Your task to perform on an android device: search for starred emails in the gmail app Image 0: 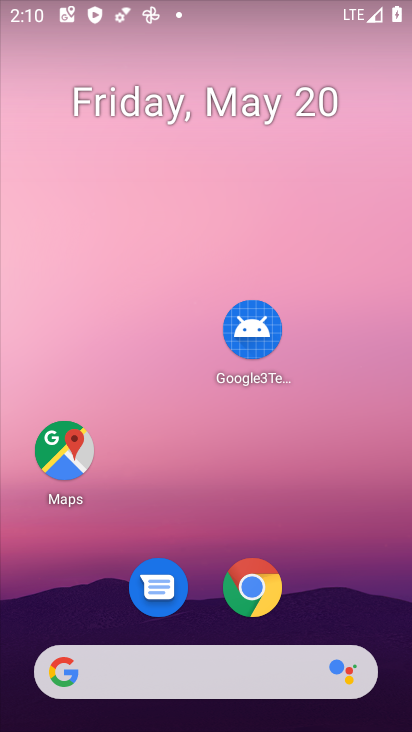
Step 0: drag from (343, 543) to (277, 104)
Your task to perform on an android device: search for starred emails in the gmail app Image 1: 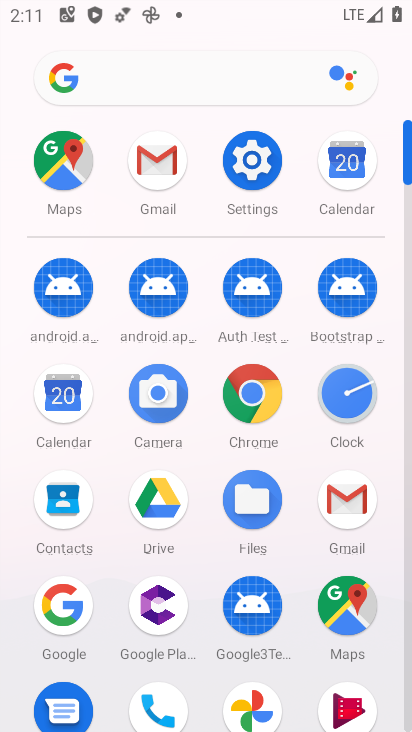
Step 1: click (153, 157)
Your task to perform on an android device: search for starred emails in the gmail app Image 2: 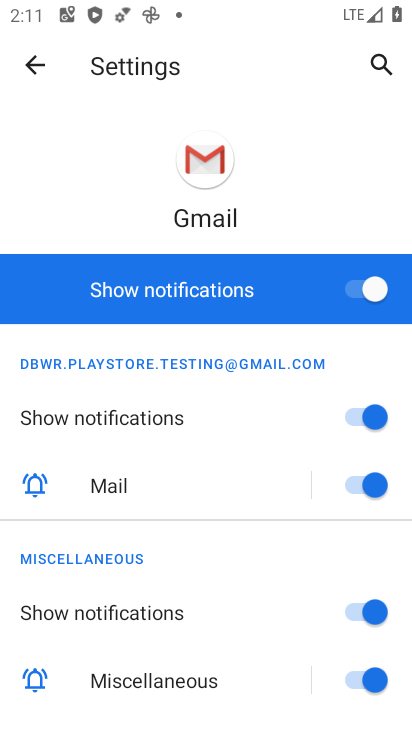
Step 2: click (28, 55)
Your task to perform on an android device: search for starred emails in the gmail app Image 3: 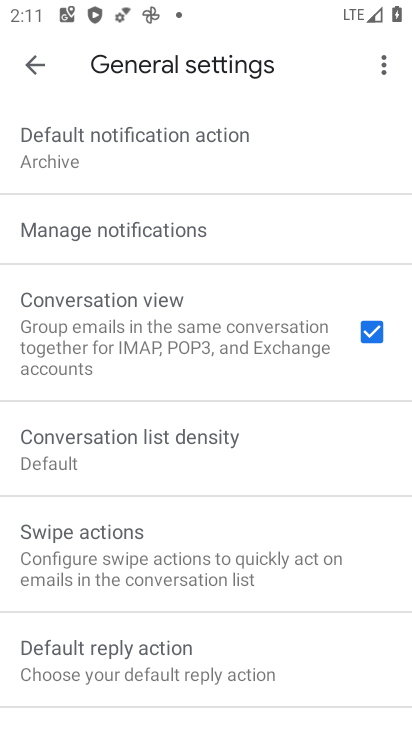
Step 3: click (33, 66)
Your task to perform on an android device: search for starred emails in the gmail app Image 4: 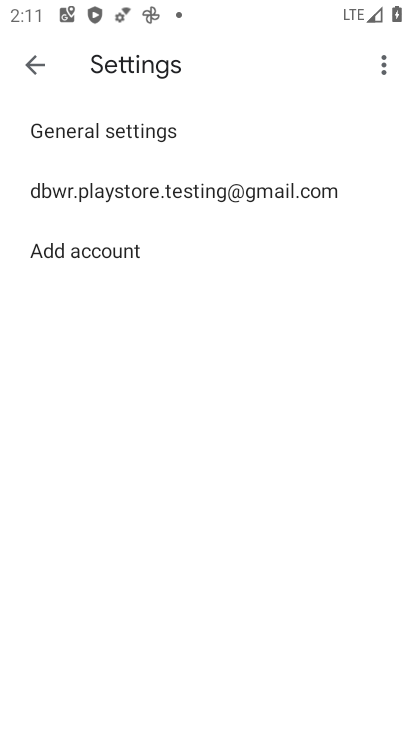
Step 4: click (33, 66)
Your task to perform on an android device: search for starred emails in the gmail app Image 5: 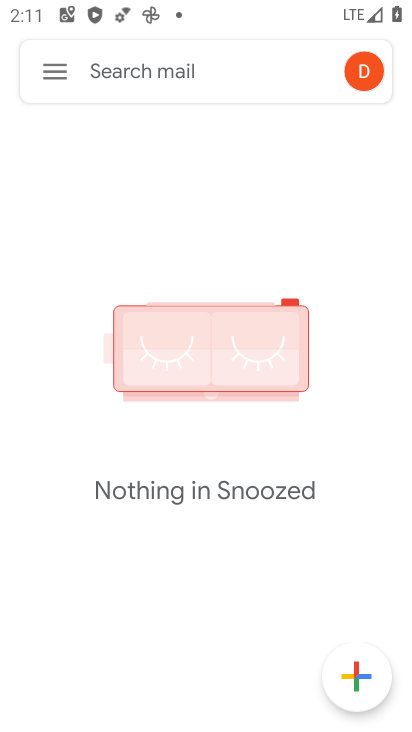
Step 5: click (45, 65)
Your task to perform on an android device: search for starred emails in the gmail app Image 6: 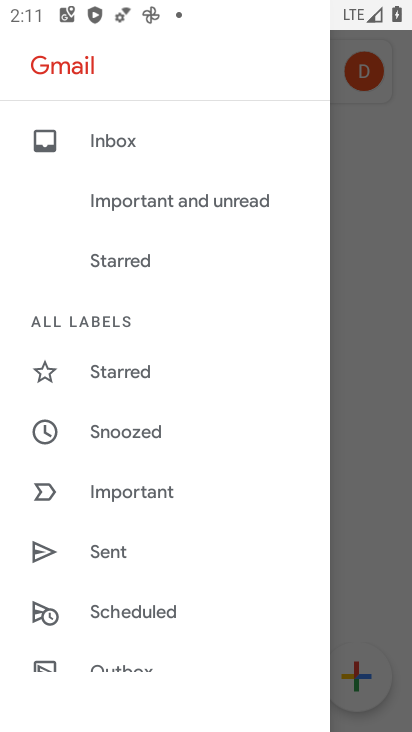
Step 6: click (138, 372)
Your task to perform on an android device: search for starred emails in the gmail app Image 7: 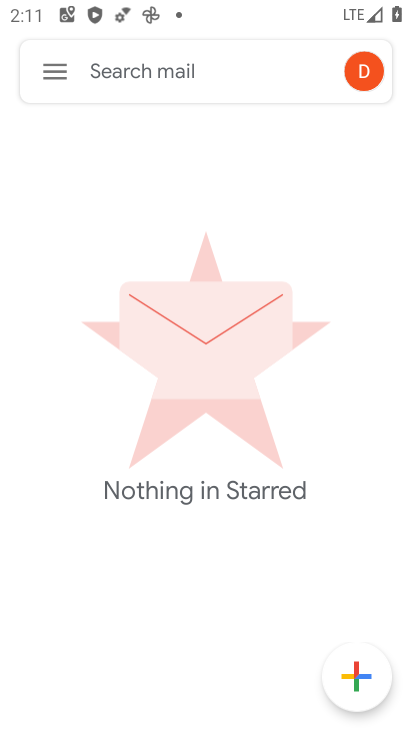
Step 7: task complete